Your task to perform on an android device: Open the map Image 0: 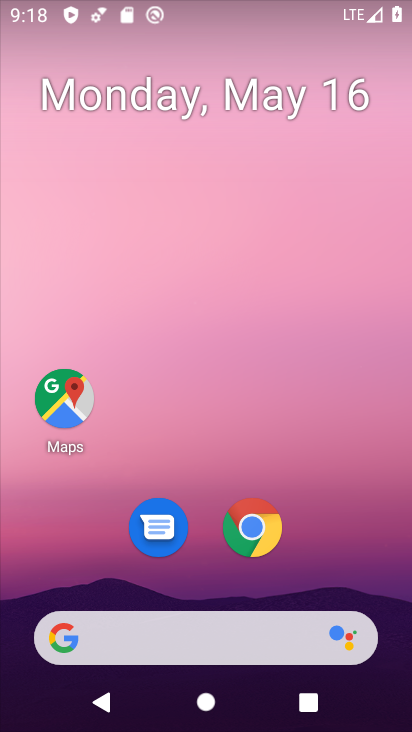
Step 0: click (68, 399)
Your task to perform on an android device: Open the map Image 1: 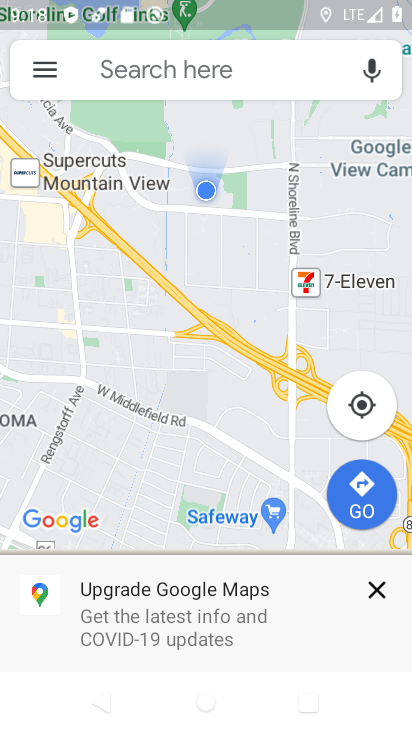
Step 1: task complete